Your task to perform on an android device: install app "The Home Depot" Image 0: 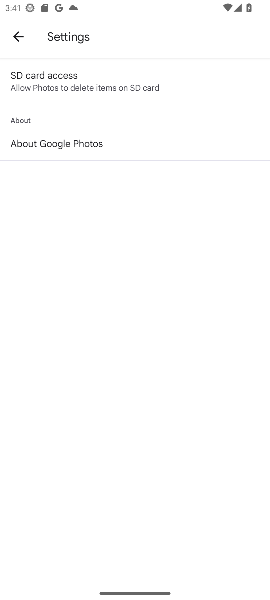
Step 0: press home button
Your task to perform on an android device: install app "The Home Depot" Image 1: 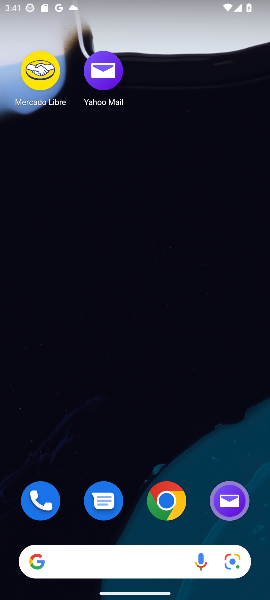
Step 1: drag from (154, 327) to (160, 0)
Your task to perform on an android device: install app "The Home Depot" Image 2: 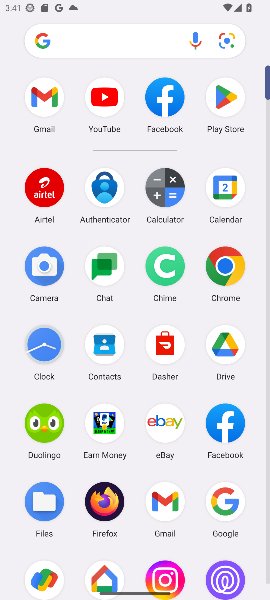
Step 2: click (223, 105)
Your task to perform on an android device: install app "The Home Depot" Image 3: 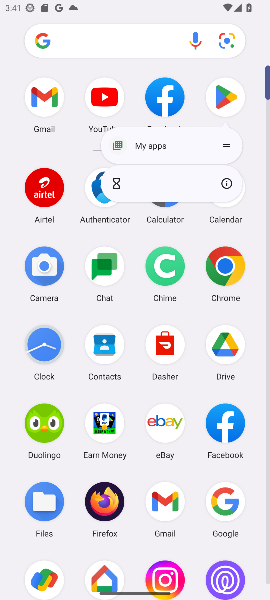
Step 3: click (223, 100)
Your task to perform on an android device: install app "The Home Depot" Image 4: 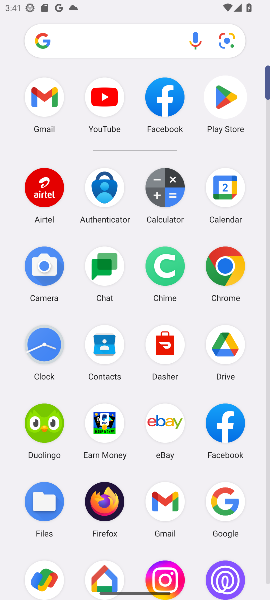
Step 4: click (223, 100)
Your task to perform on an android device: install app "The Home Depot" Image 5: 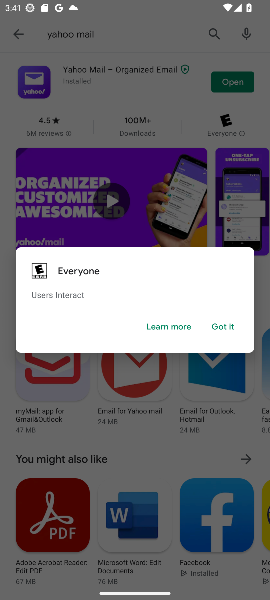
Step 5: click (214, 41)
Your task to perform on an android device: install app "The Home Depot" Image 6: 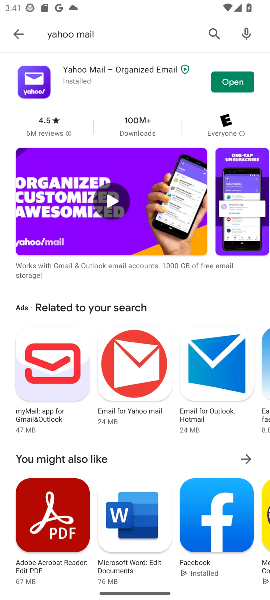
Step 6: click (211, 28)
Your task to perform on an android device: install app "The Home Depot" Image 7: 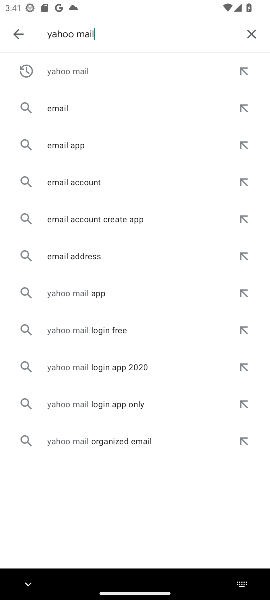
Step 7: click (247, 35)
Your task to perform on an android device: install app "The Home Depot" Image 8: 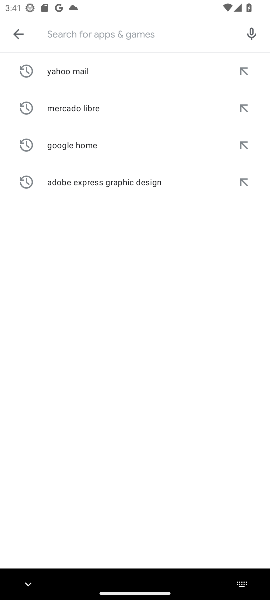
Step 8: type "The Home Depot"
Your task to perform on an android device: install app "The Home Depot" Image 9: 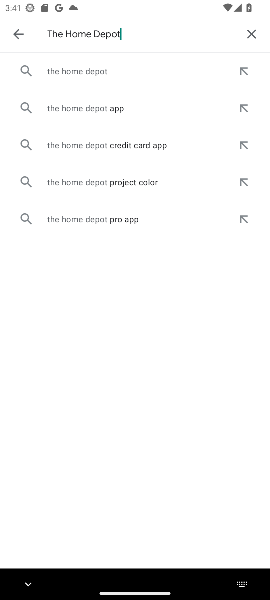
Step 9: click (94, 73)
Your task to perform on an android device: install app "The Home Depot" Image 10: 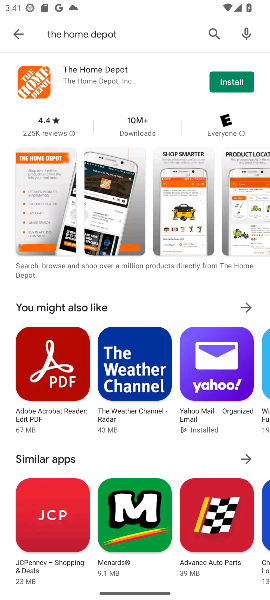
Step 10: click (225, 83)
Your task to perform on an android device: install app "The Home Depot" Image 11: 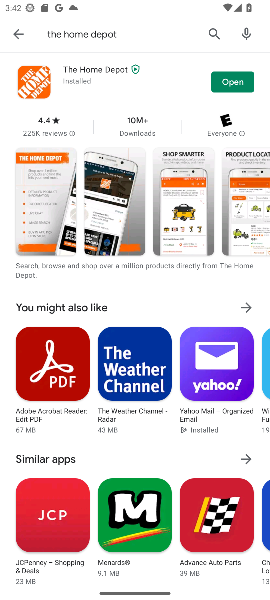
Step 11: task complete